Your task to perform on an android device: turn off javascript in the chrome app Image 0: 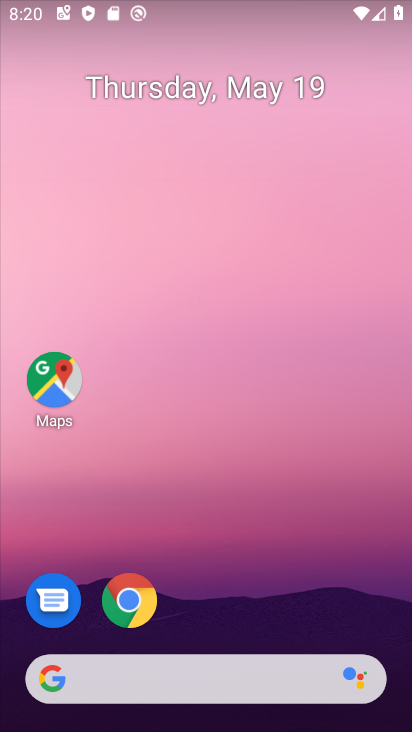
Step 0: click (127, 614)
Your task to perform on an android device: turn off javascript in the chrome app Image 1: 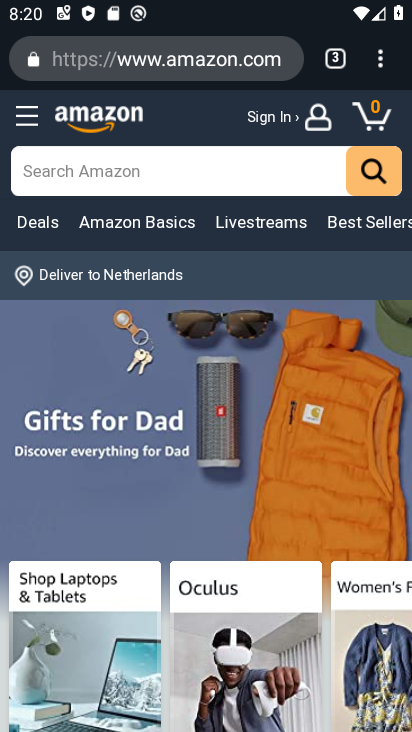
Step 1: click (383, 66)
Your task to perform on an android device: turn off javascript in the chrome app Image 2: 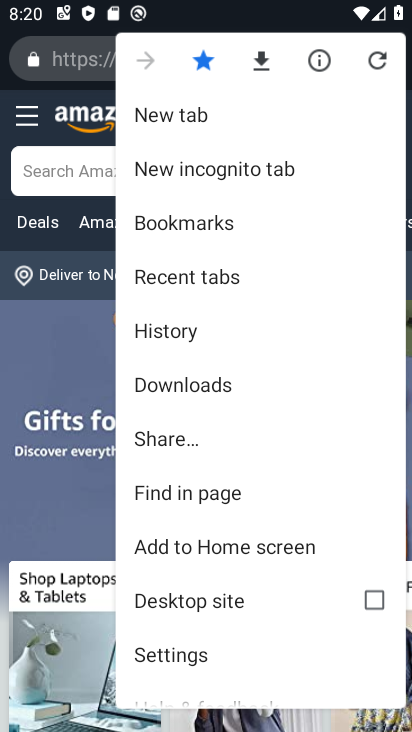
Step 2: click (188, 652)
Your task to perform on an android device: turn off javascript in the chrome app Image 3: 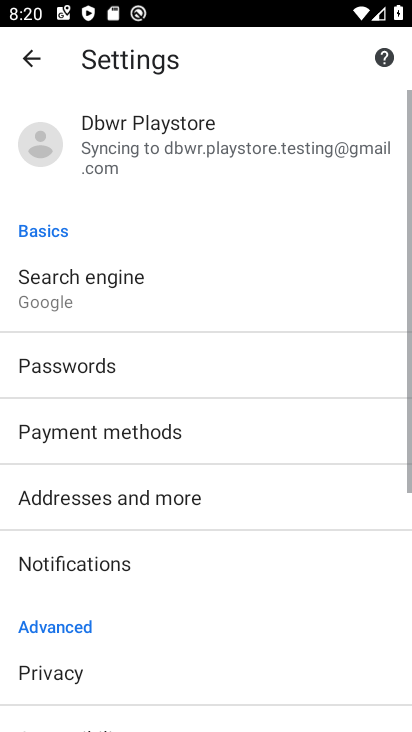
Step 3: drag from (188, 652) to (192, 185)
Your task to perform on an android device: turn off javascript in the chrome app Image 4: 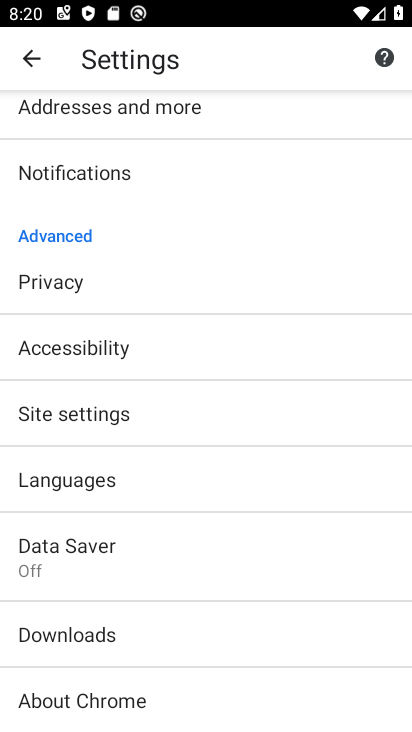
Step 4: click (72, 421)
Your task to perform on an android device: turn off javascript in the chrome app Image 5: 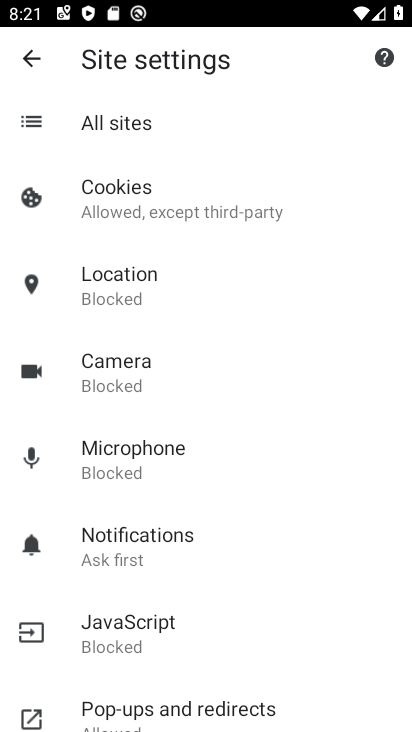
Step 5: drag from (201, 556) to (176, 407)
Your task to perform on an android device: turn off javascript in the chrome app Image 6: 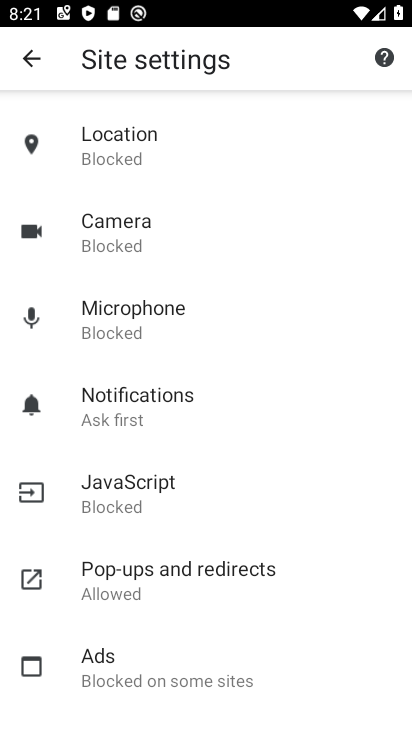
Step 6: click (104, 478)
Your task to perform on an android device: turn off javascript in the chrome app Image 7: 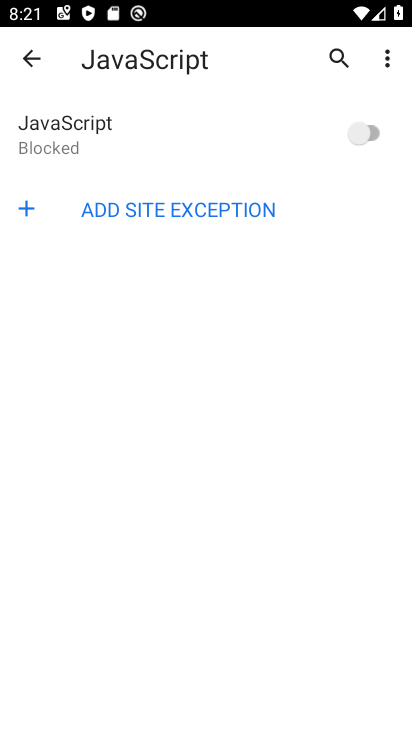
Step 7: task complete